Your task to perform on an android device: clear history in the chrome app Image 0: 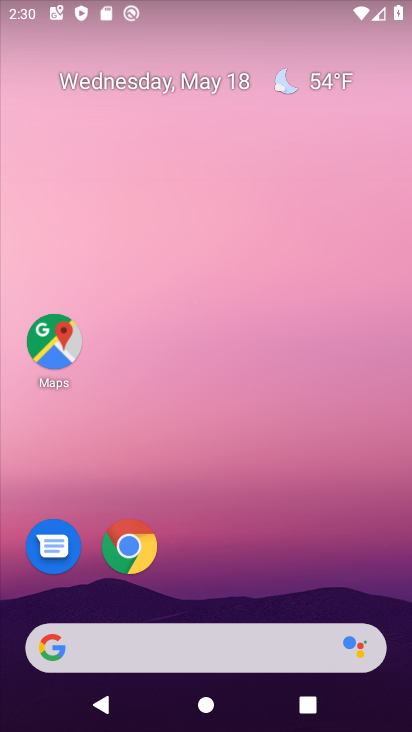
Step 0: press home button
Your task to perform on an android device: clear history in the chrome app Image 1: 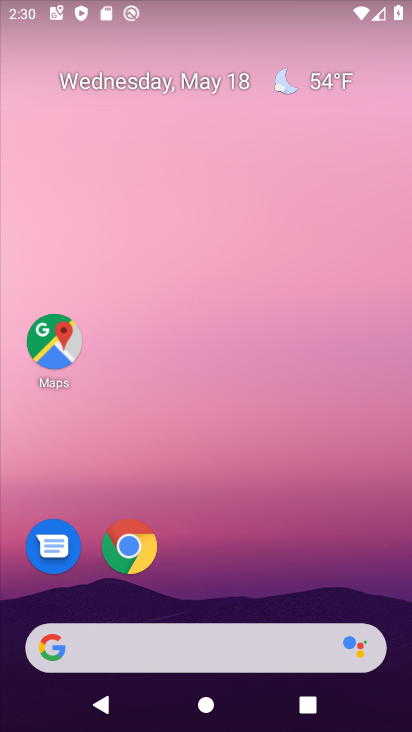
Step 1: click (147, 561)
Your task to perform on an android device: clear history in the chrome app Image 2: 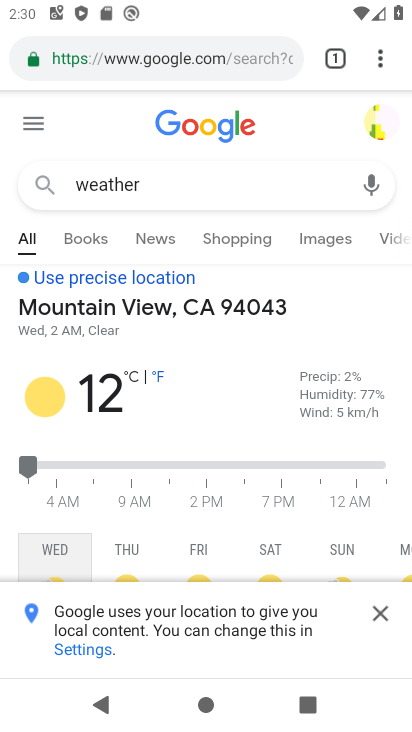
Step 2: drag from (376, 55) to (180, 326)
Your task to perform on an android device: clear history in the chrome app Image 3: 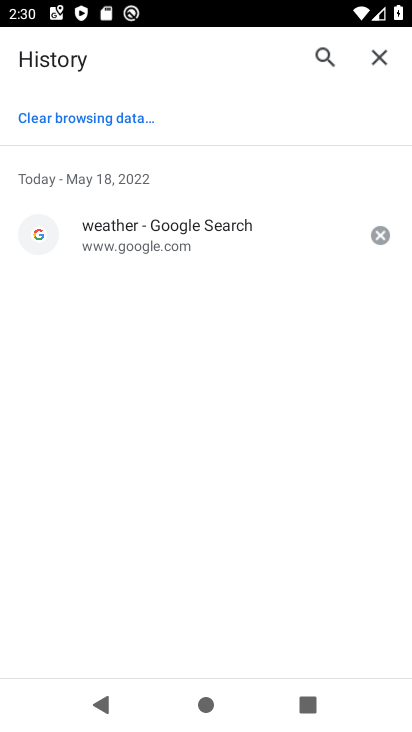
Step 3: click (384, 238)
Your task to perform on an android device: clear history in the chrome app Image 4: 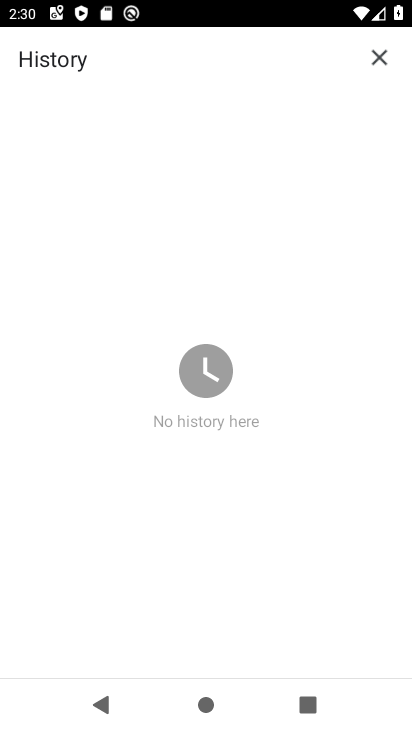
Step 4: task complete